Your task to perform on an android device: Open my contact list Image 0: 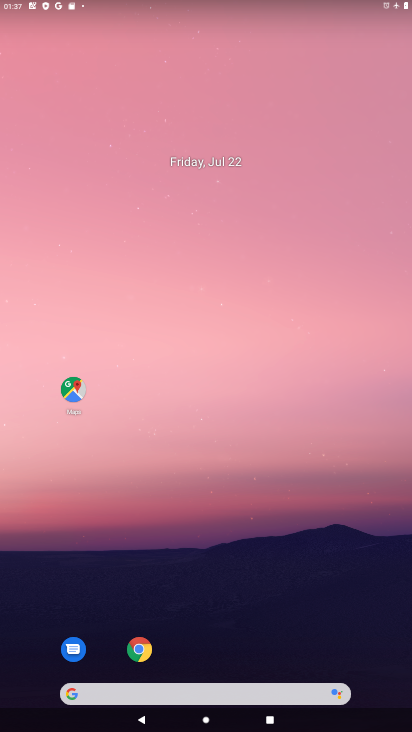
Step 0: drag from (303, 625) to (298, 81)
Your task to perform on an android device: Open my contact list Image 1: 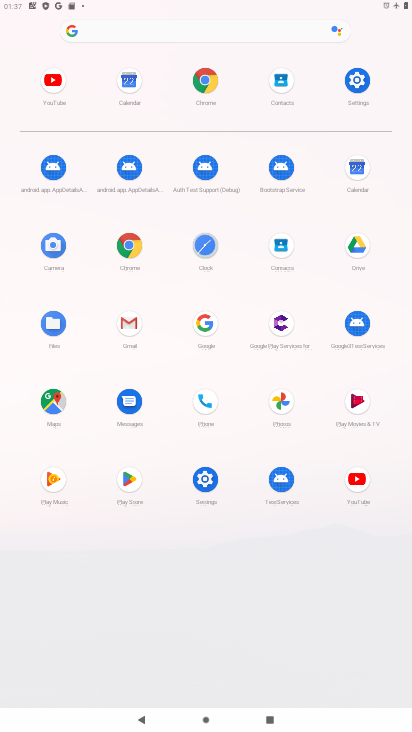
Step 1: click (284, 240)
Your task to perform on an android device: Open my contact list Image 2: 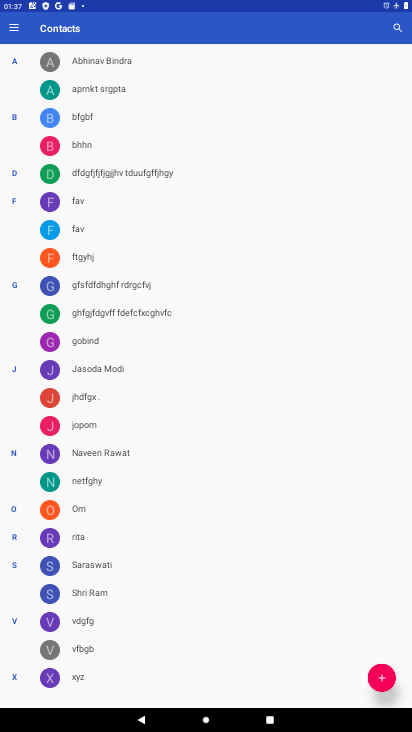
Step 2: task complete